Your task to perform on an android device: turn on airplane mode Image 0: 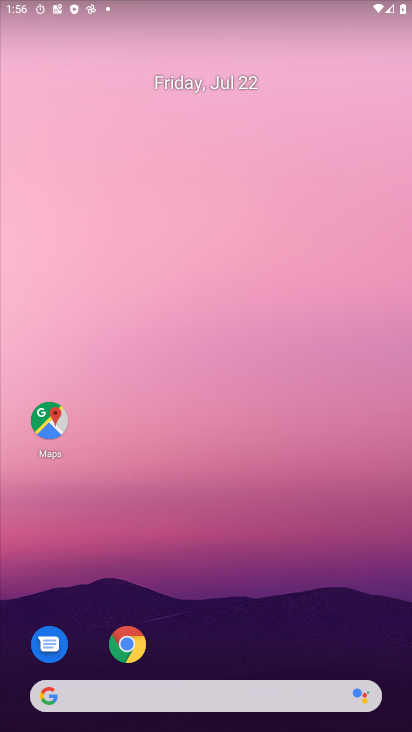
Step 0: drag from (233, 680) to (219, 256)
Your task to perform on an android device: turn on airplane mode Image 1: 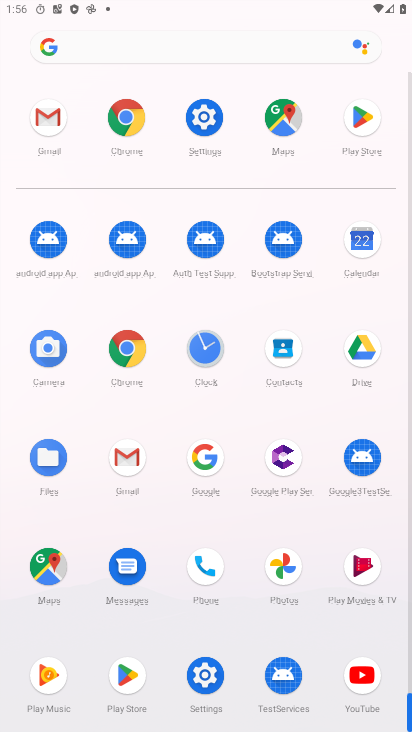
Step 1: click (217, 149)
Your task to perform on an android device: turn on airplane mode Image 2: 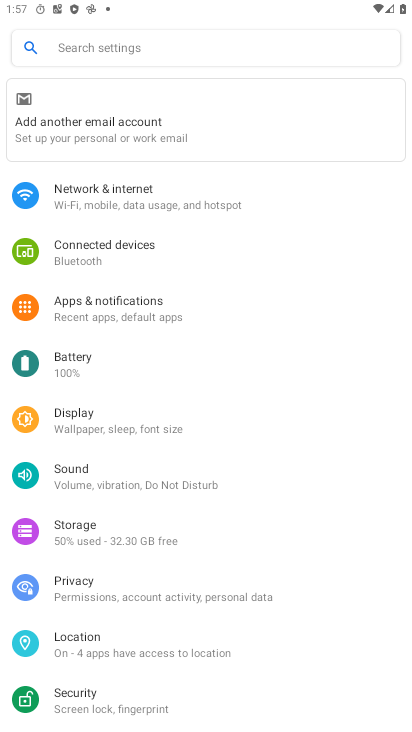
Step 2: click (174, 210)
Your task to perform on an android device: turn on airplane mode Image 3: 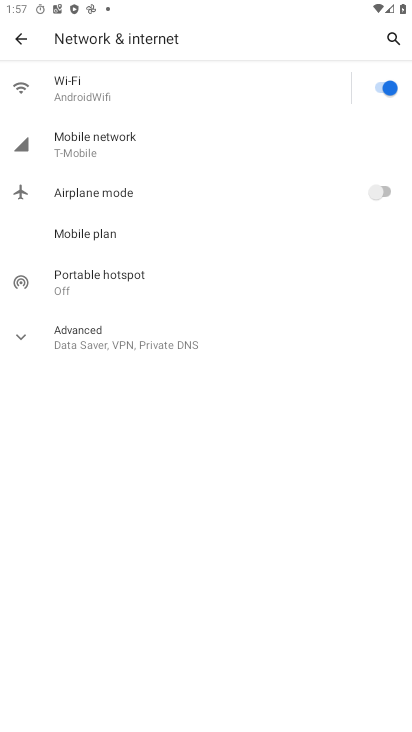
Step 3: click (382, 193)
Your task to perform on an android device: turn on airplane mode Image 4: 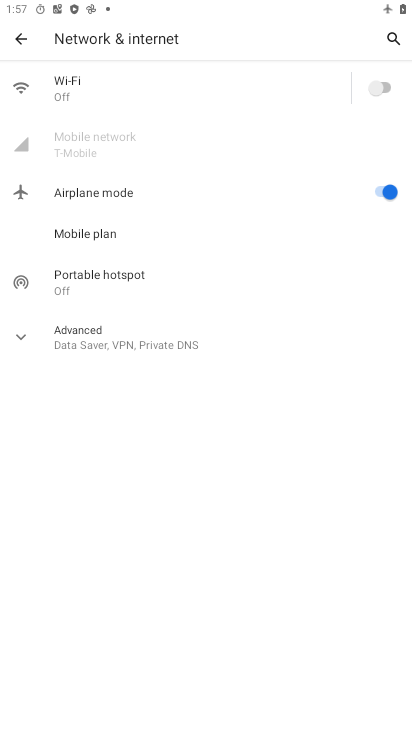
Step 4: task complete